Your task to perform on an android device: Show me the alarms in the clock app Image 0: 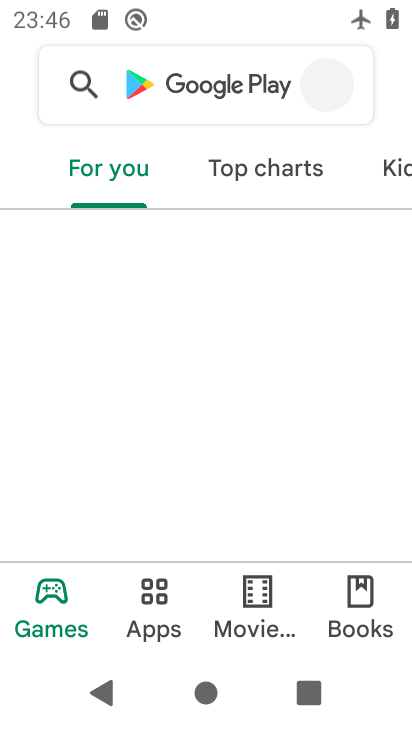
Step 0: press home button
Your task to perform on an android device: Show me the alarms in the clock app Image 1: 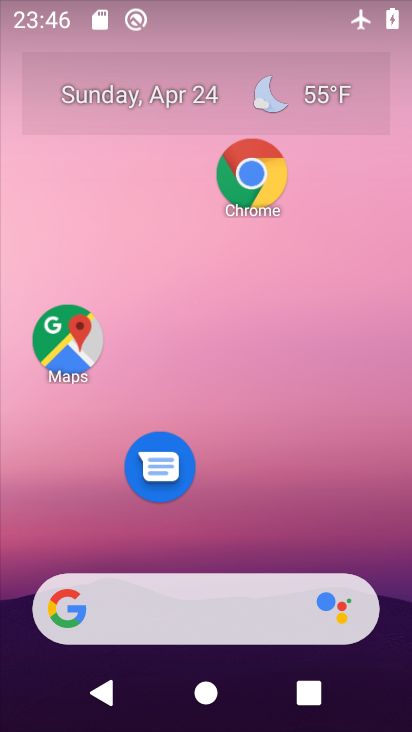
Step 1: drag from (263, 517) to (285, 68)
Your task to perform on an android device: Show me the alarms in the clock app Image 2: 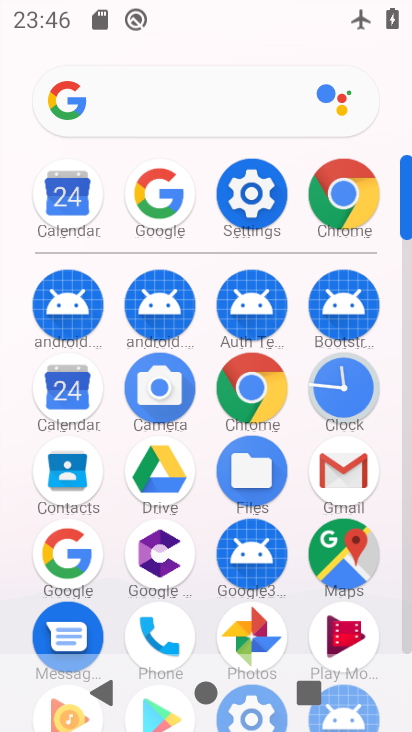
Step 2: click (349, 387)
Your task to perform on an android device: Show me the alarms in the clock app Image 3: 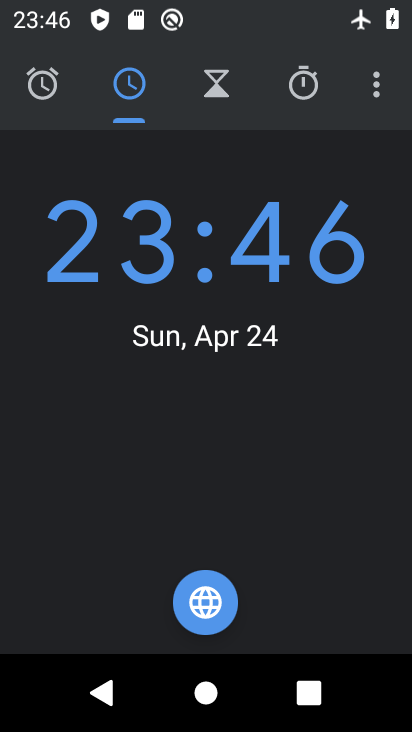
Step 3: click (372, 87)
Your task to perform on an android device: Show me the alarms in the clock app Image 4: 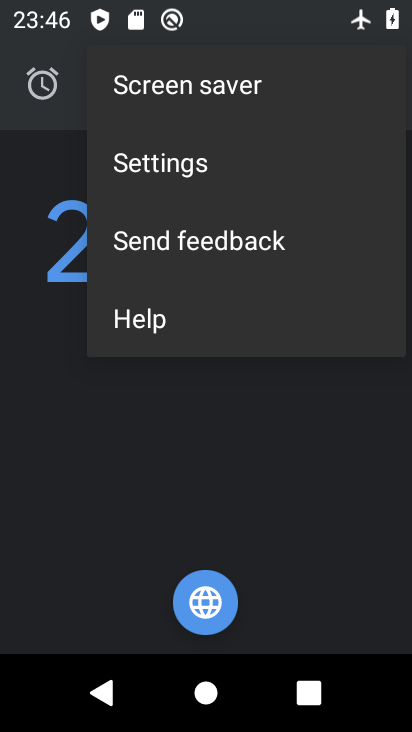
Step 4: click (58, 75)
Your task to perform on an android device: Show me the alarms in the clock app Image 5: 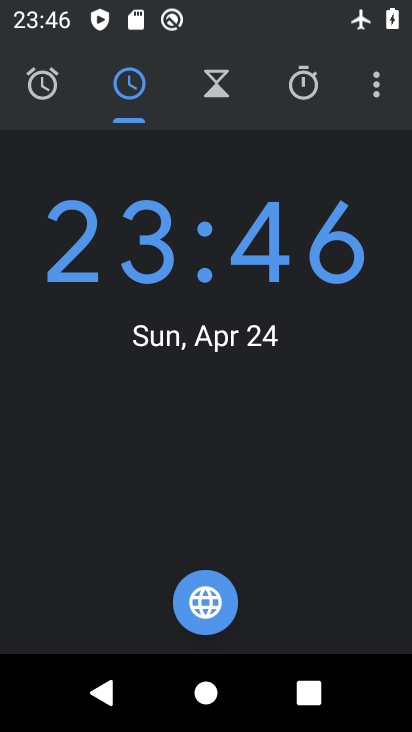
Step 5: click (43, 81)
Your task to perform on an android device: Show me the alarms in the clock app Image 6: 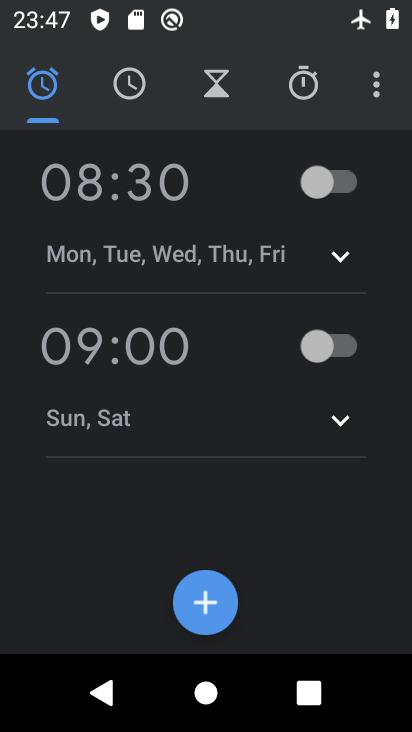
Step 6: task complete